Your task to perform on an android device: Add razer kraken to the cart on costco.com Image 0: 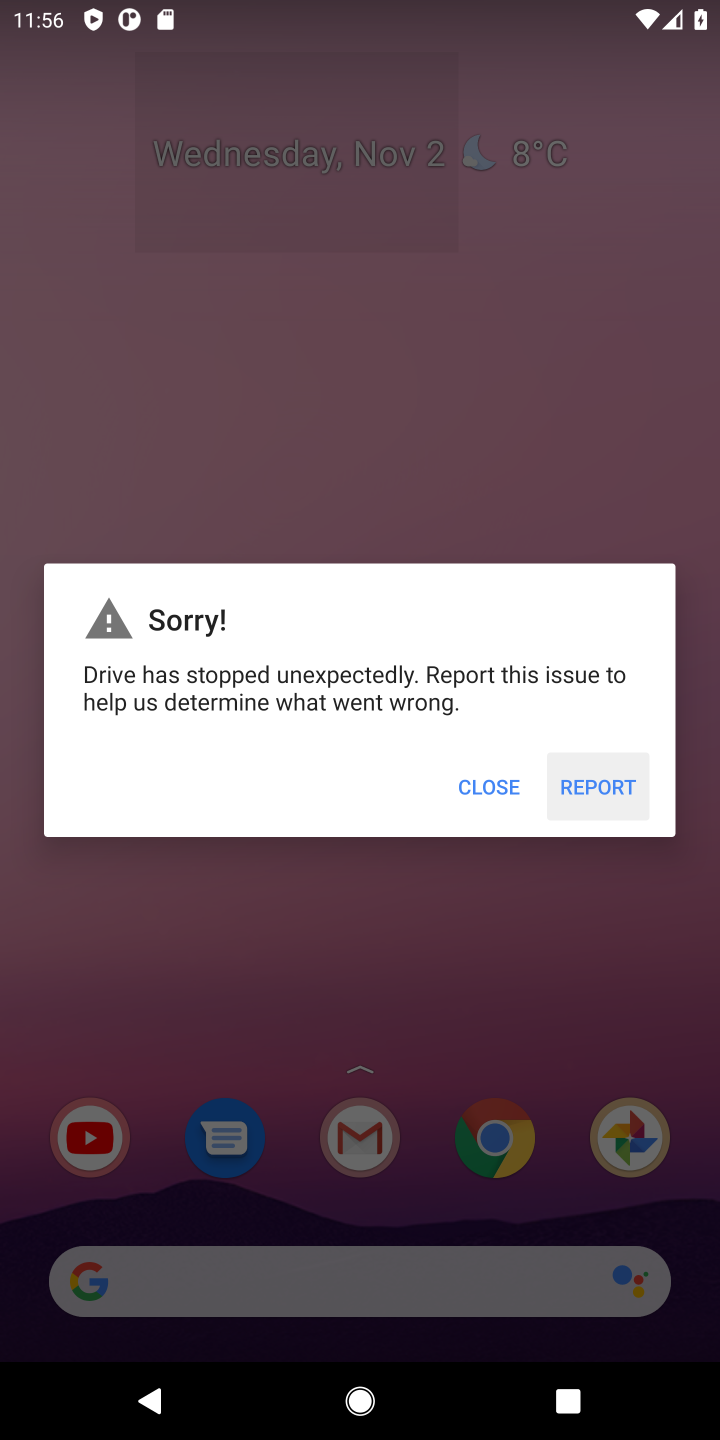
Step 0: click (452, 783)
Your task to perform on an android device: Add razer kraken to the cart on costco.com Image 1: 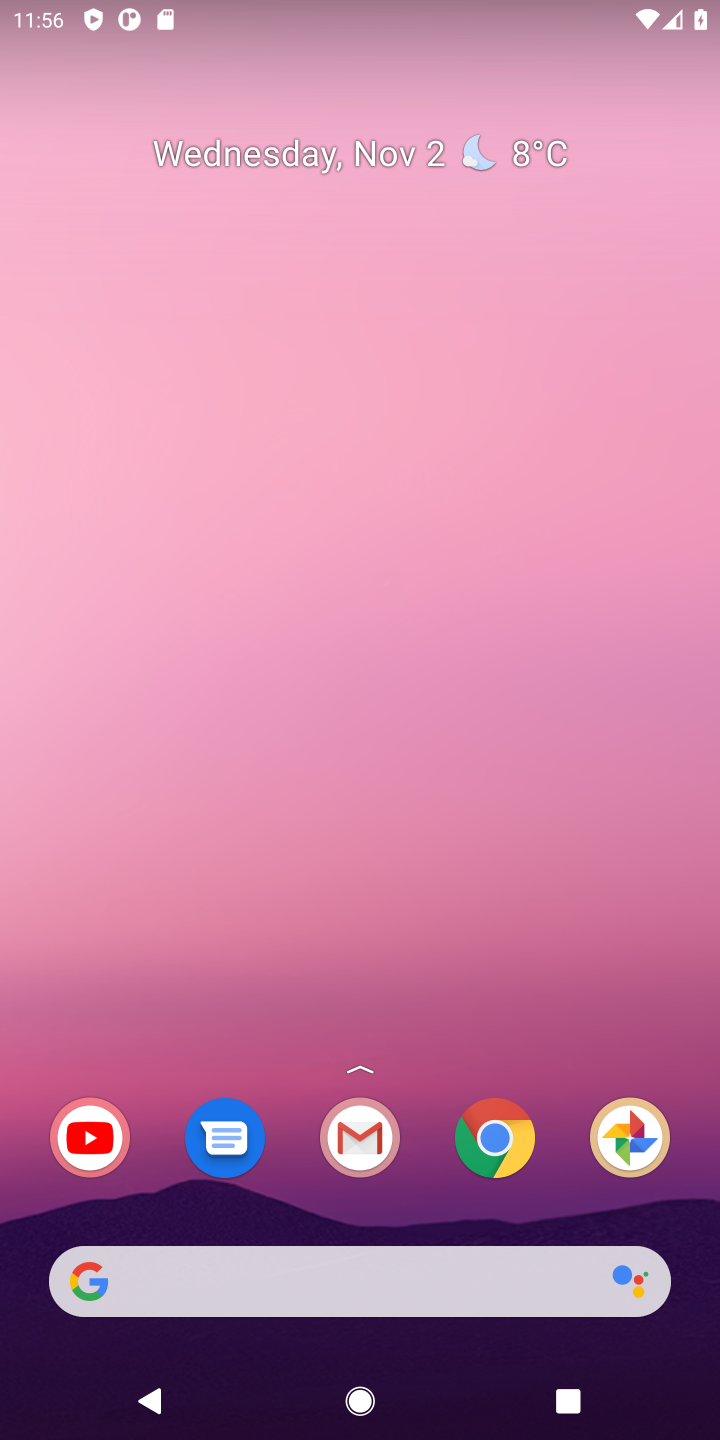
Step 1: click (451, 1112)
Your task to perform on an android device: Add razer kraken to the cart on costco.com Image 2: 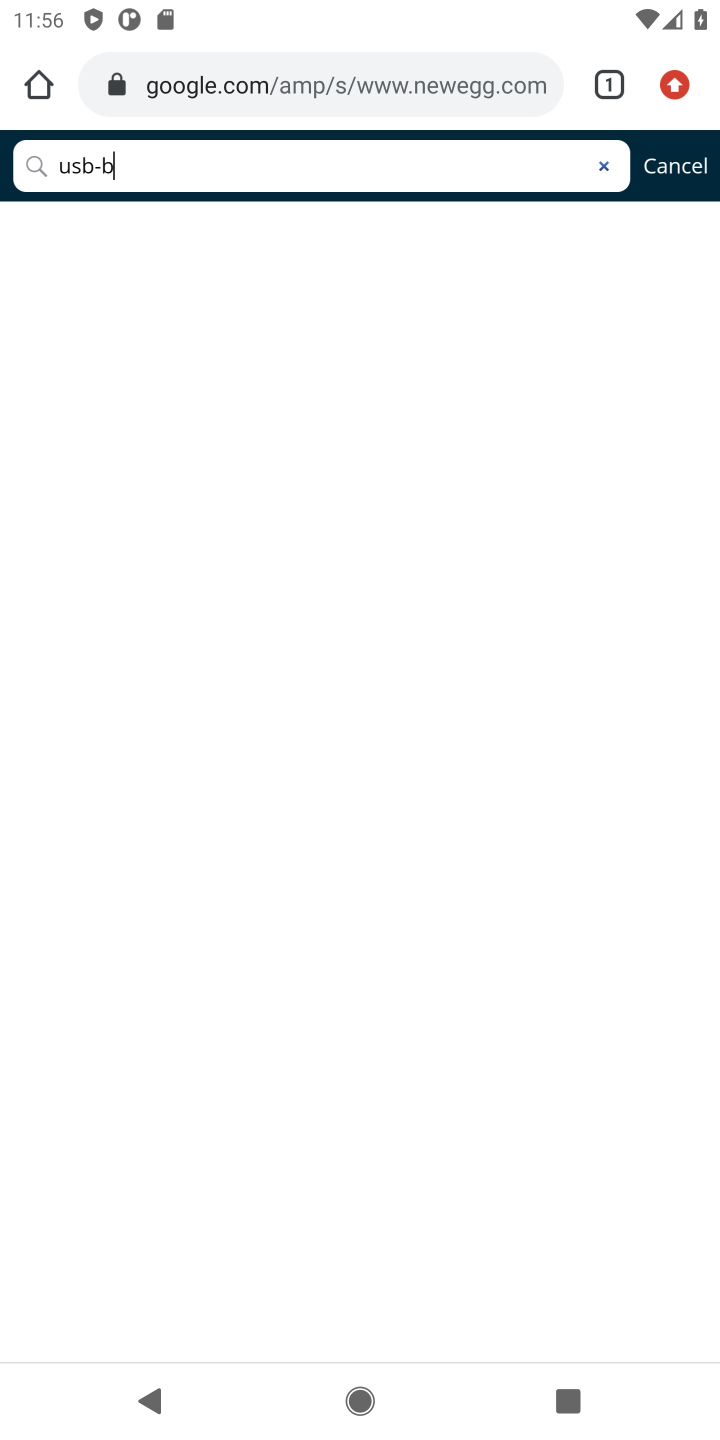
Step 2: click (398, 75)
Your task to perform on an android device: Add razer kraken to the cart on costco.com Image 3: 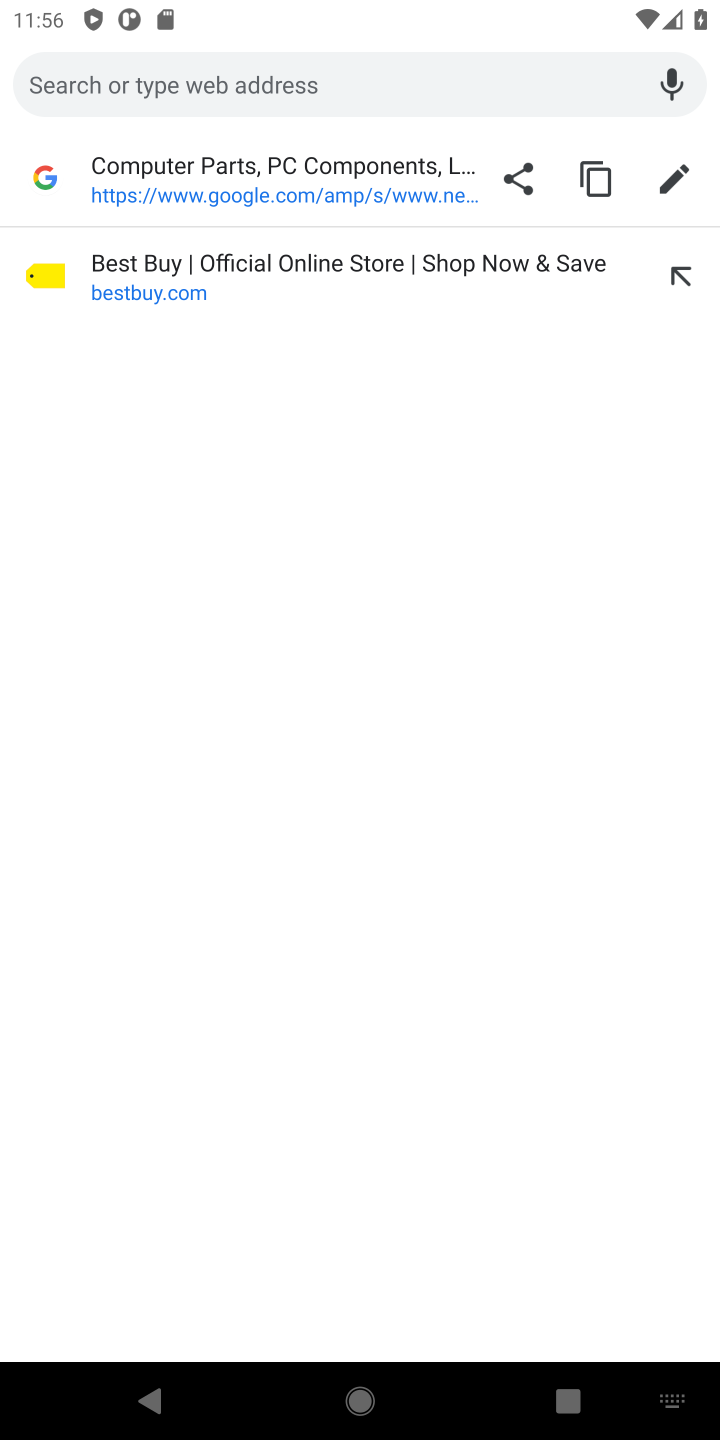
Step 3: type "costco"
Your task to perform on an android device: Add razer kraken to the cart on costco.com Image 4: 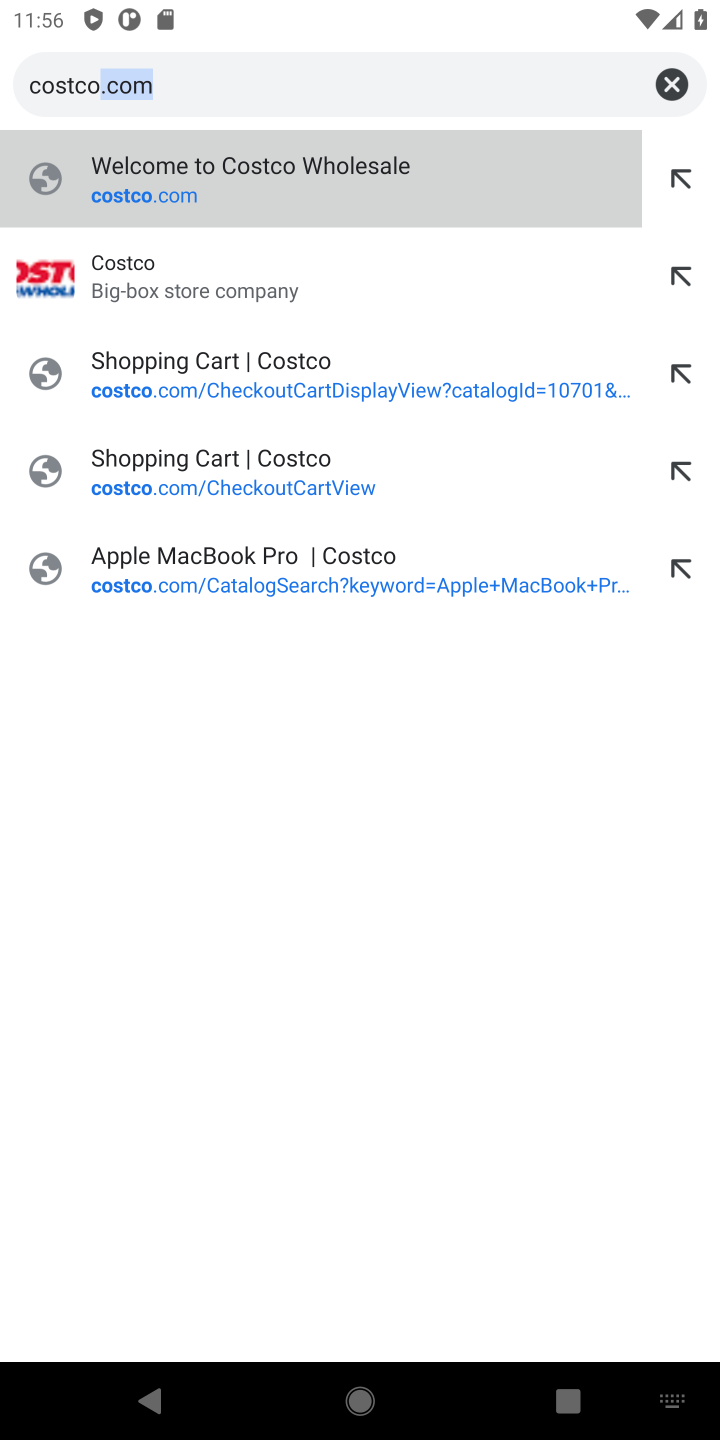
Step 4: click (199, 279)
Your task to perform on an android device: Add razer kraken to the cart on costco.com Image 5: 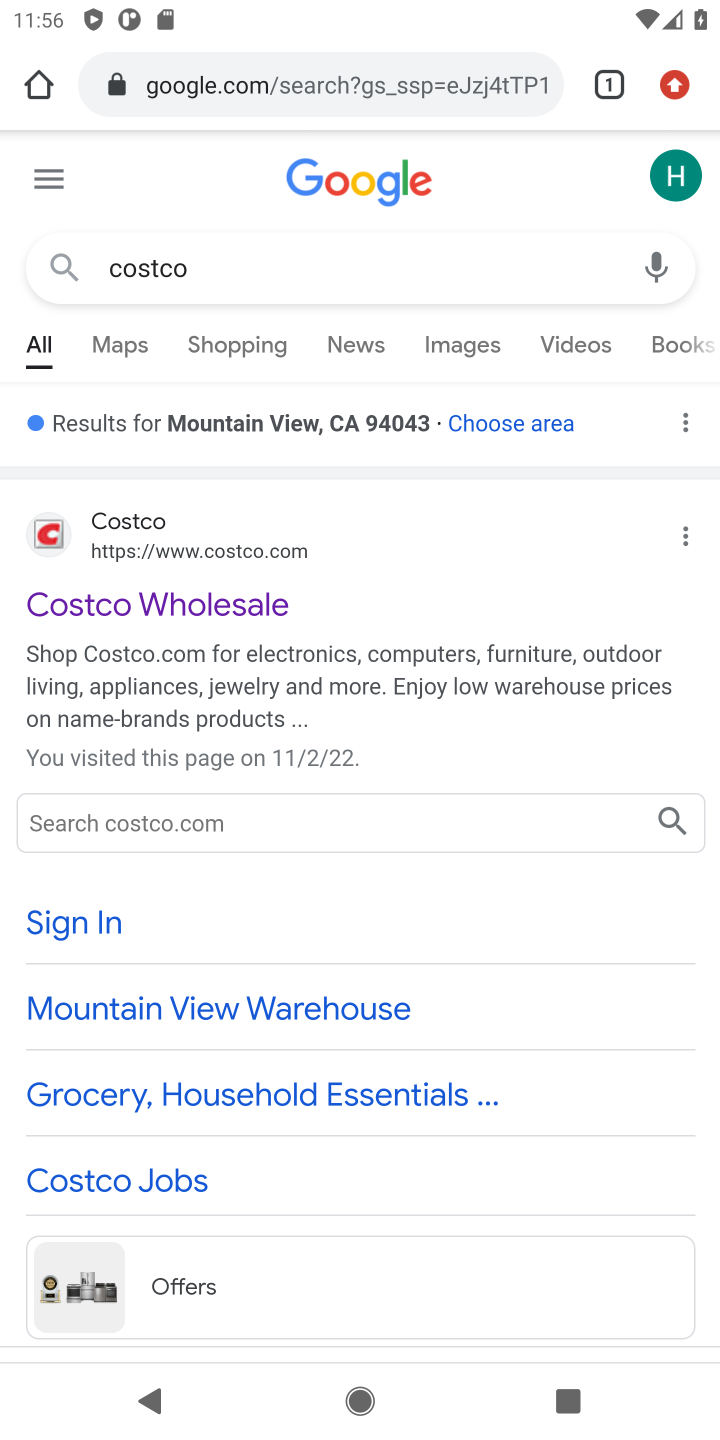
Step 5: click (150, 601)
Your task to perform on an android device: Add razer kraken to the cart on costco.com Image 6: 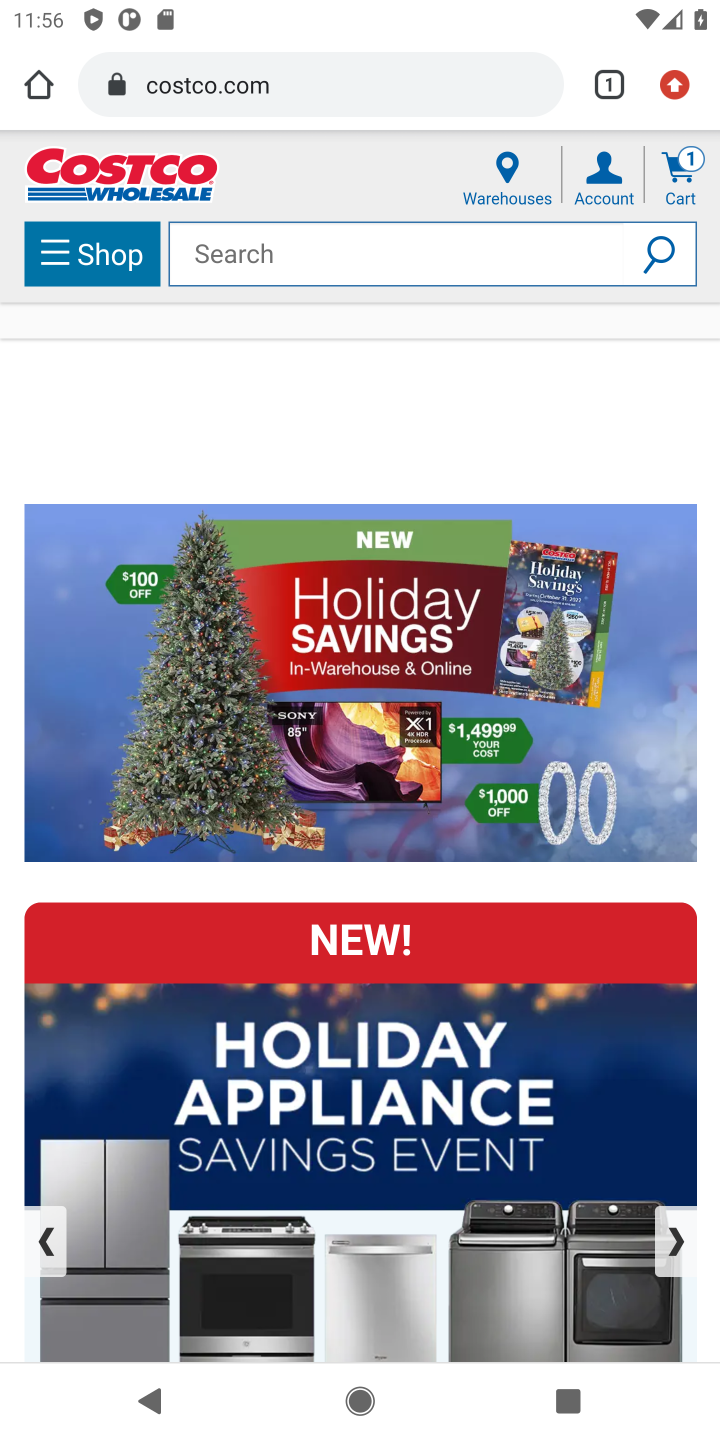
Step 6: click (253, 272)
Your task to perform on an android device: Add razer kraken to the cart on costco.com Image 7: 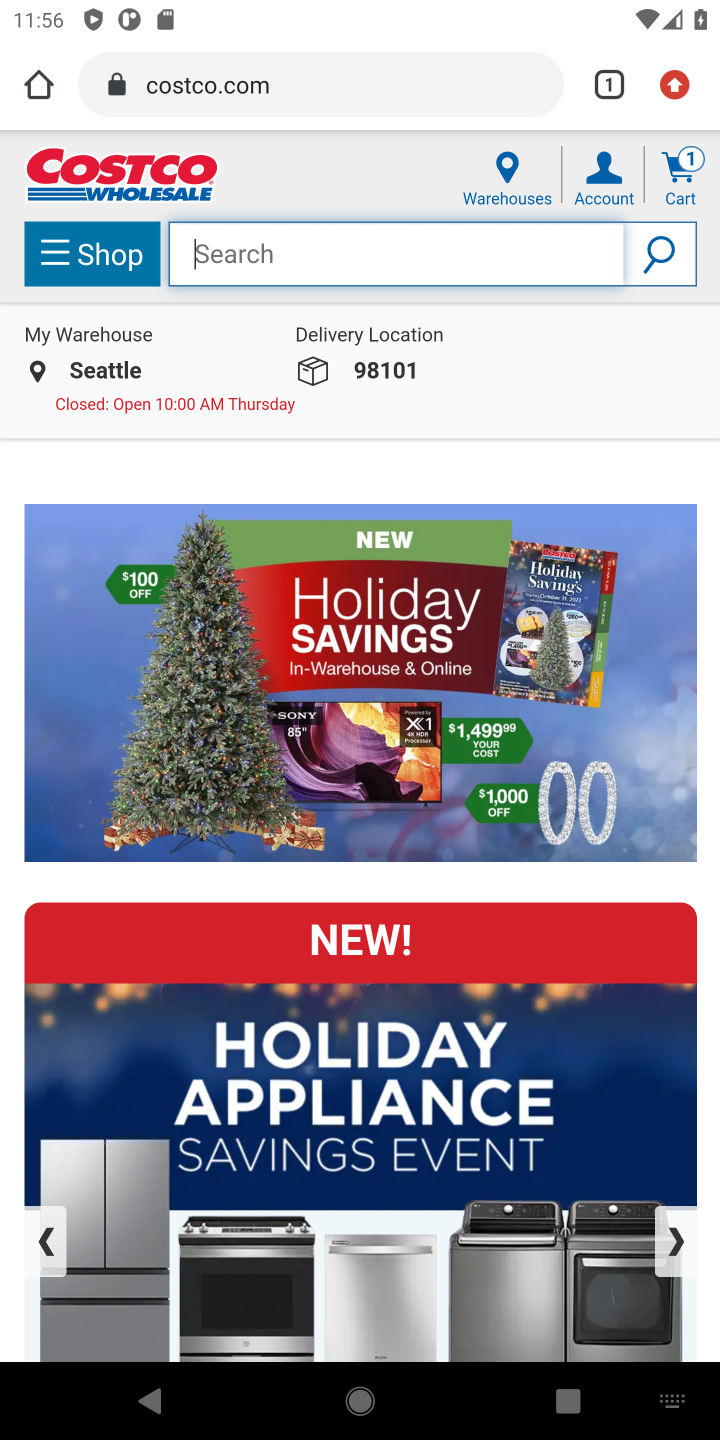
Step 7: type "razer kraken "
Your task to perform on an android device: Add razer kraken to the cart on costco.com Image 8: 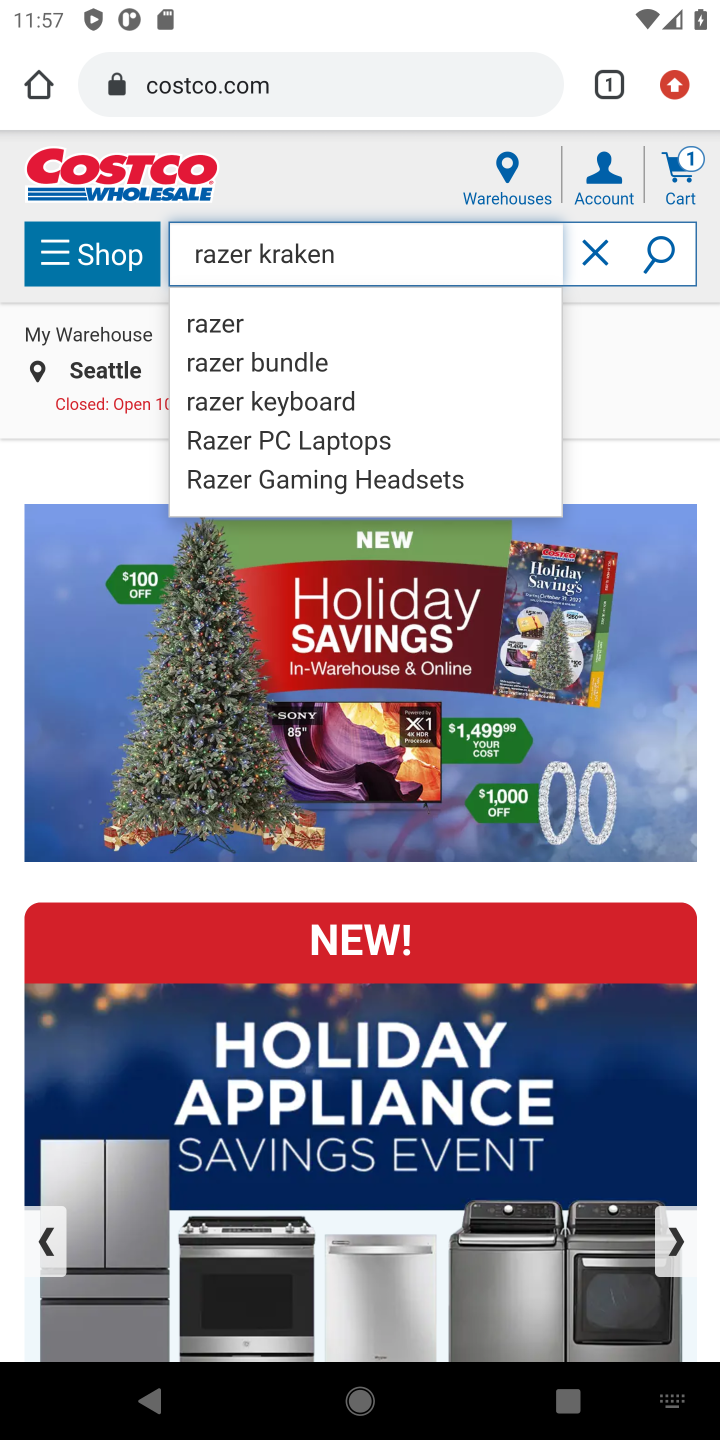
Step 8: click (666, 254)
Your task to perform on an android device: Add razer kraken to the cart on costco.com Image 9: 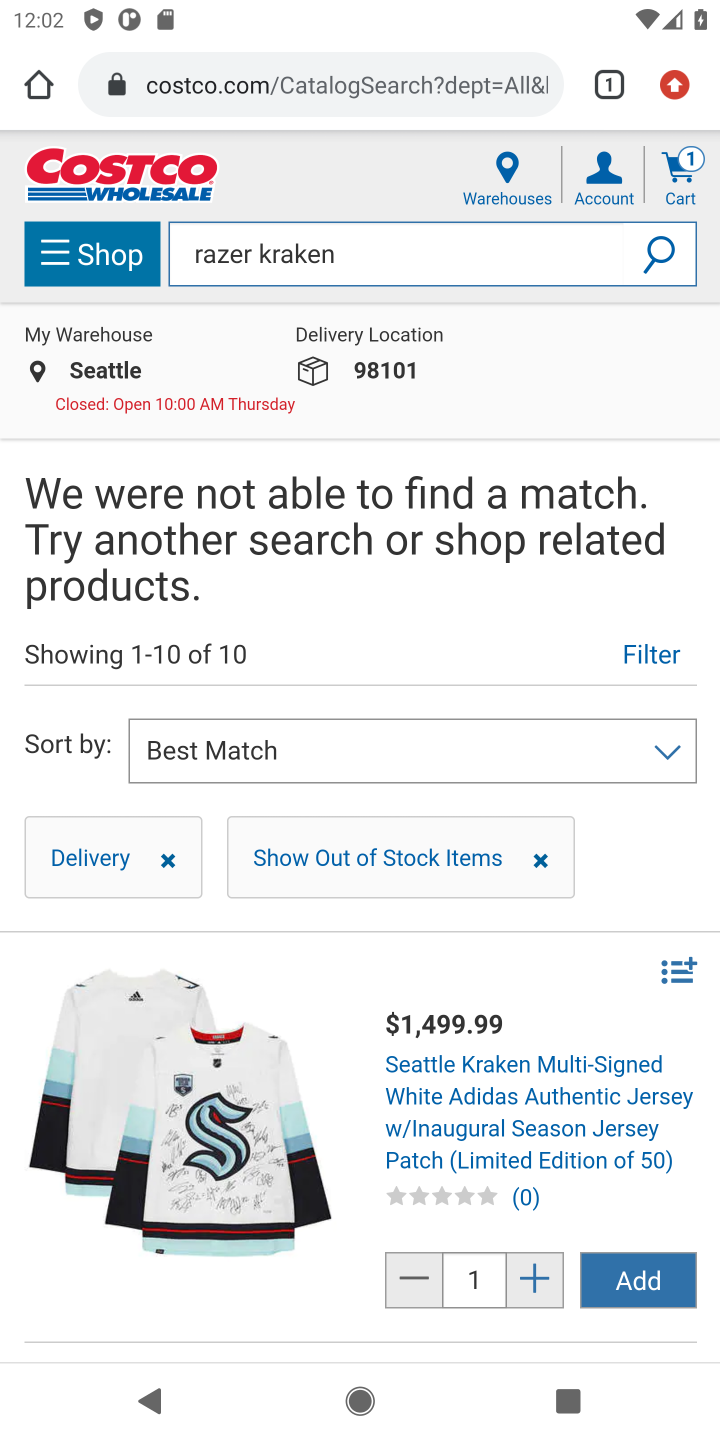
Step 9: task complete